Your task to perform on an android device: Open the calendar and show me this week's events? Image 0: 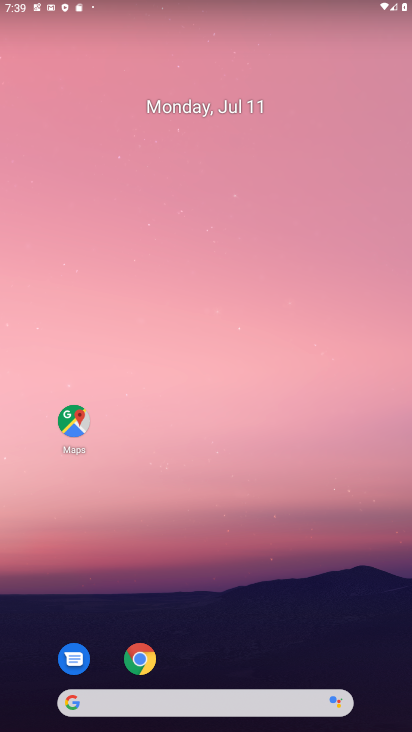
Step 0: press back button
Your task to perform on an android device: Open the calendar and show me this week's events? Image 1: 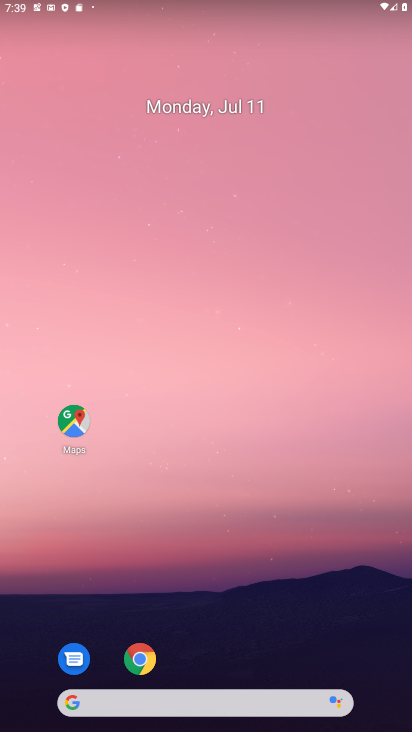
Step 1: press home button
Your task to perform on an android device: Open the calendar and show me this week's events? Image 2: 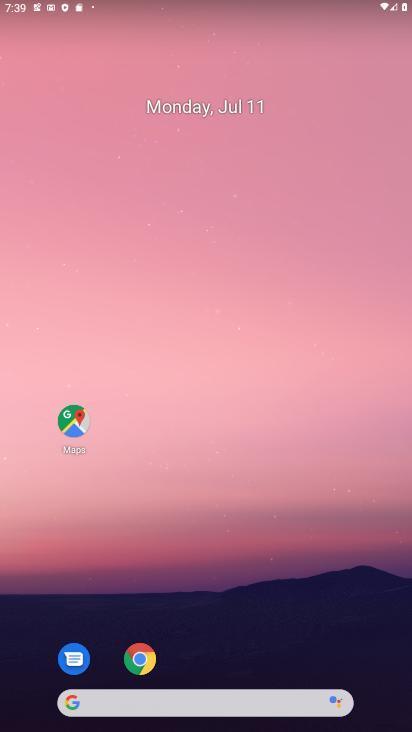
Step 2: drag from (90, 154) to (57, 16)
Your task to perform on an android device: Open the calendar and show me this week's events? Image 3: 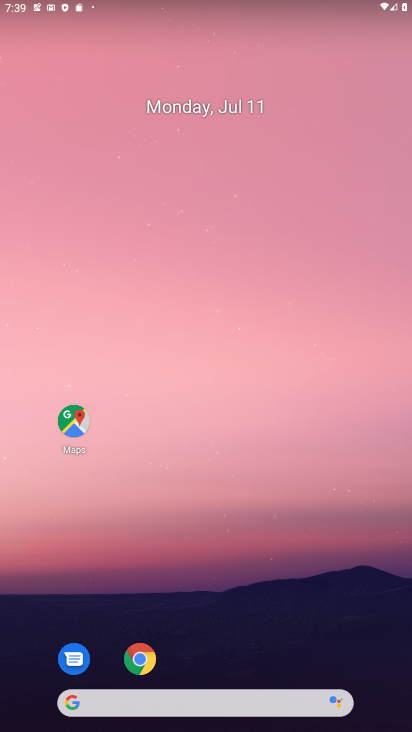
Step 3: drag from (199, 499) to (161, 33)
Your task to perform on an android device: Open the calendar and show me this week's events? Image 4: 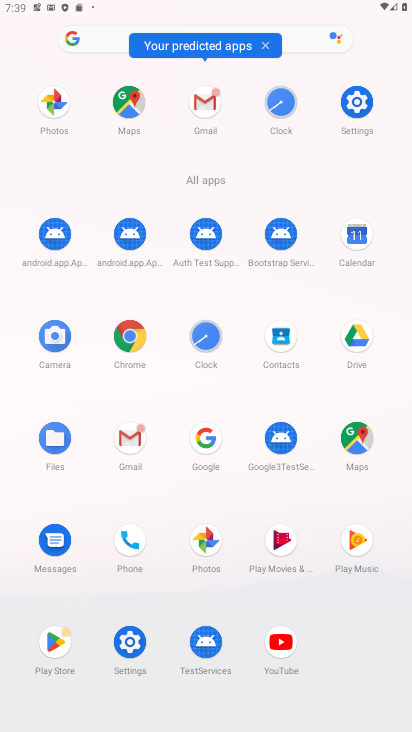
Step 4: click (356, 233)
Your task to perform on an android device: Open the calendar and show me this week's events? Image 5: 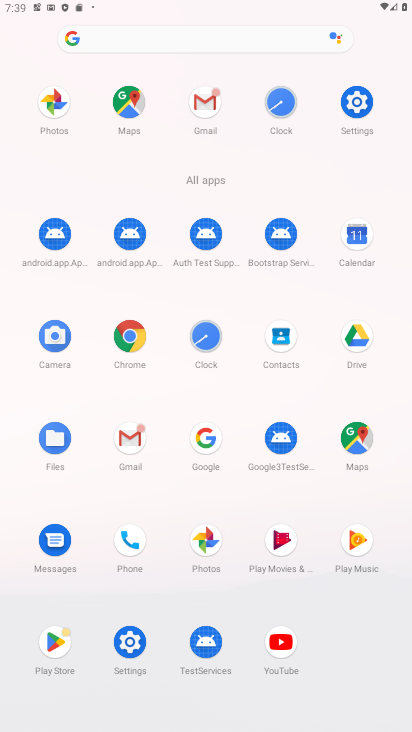
Step 5: click (352, 236)
Your task to perform on an android device: Open the calendar and show me this week's events? Image 6: 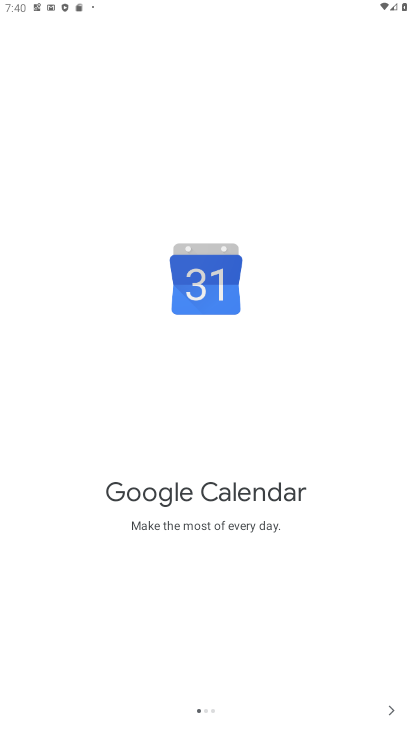
Step 6: click (386, 717)
Your task to perform on an android device: Open the calendar and show me this week's events? Image 7: 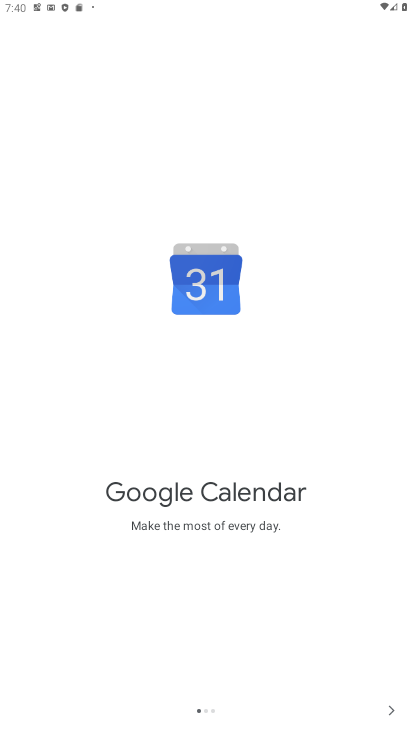
Step 7: click (398, 710)
Your task to perform on an android device: Open the calendar and show me this week's events? Image 8: 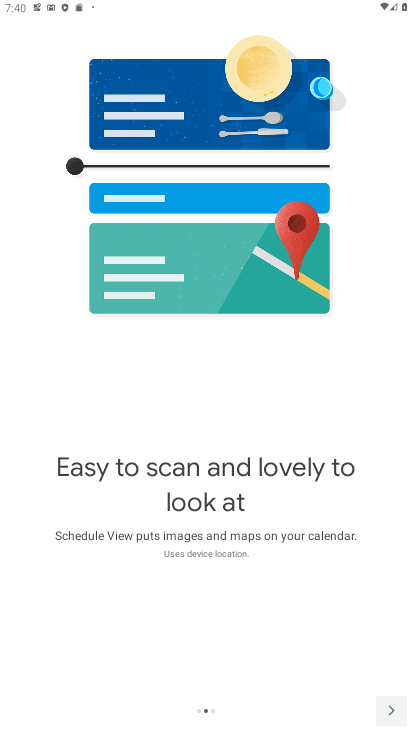
Step 8: click (388, 708)
Your task to perform on an android device: Open the calendar and show me this week's events? Image 9: 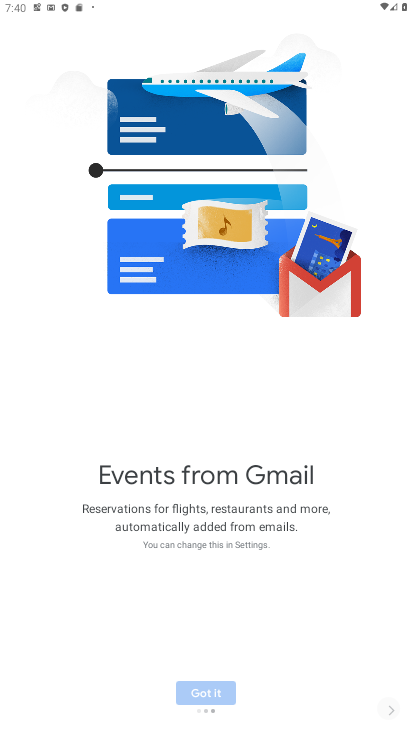
Step 9: click (386, 706)
Your task to perform on an android device: Open the calendar and show me this week's events? Image 10: 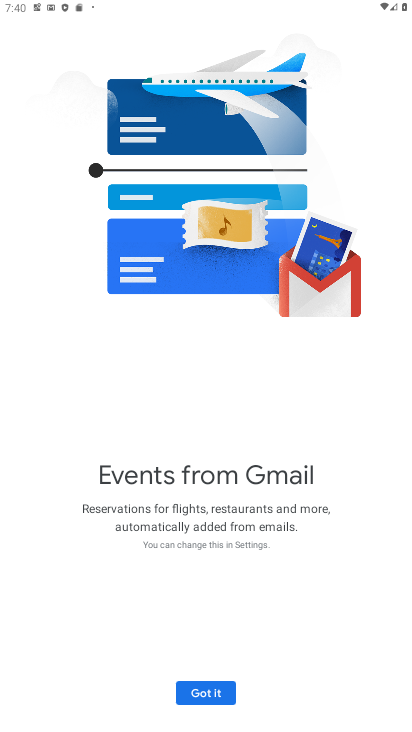
Step 10: click (387, 704)
Your task to perform on an android device: Open the calendar and show me this week's events? Image 11: 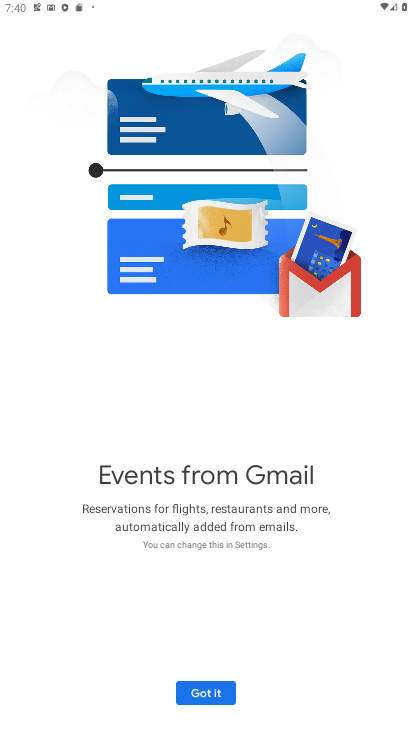
Step 11: click (387, 704)
Your task to perform on an android device: Open the calendar and show me this week's events? Image 12: 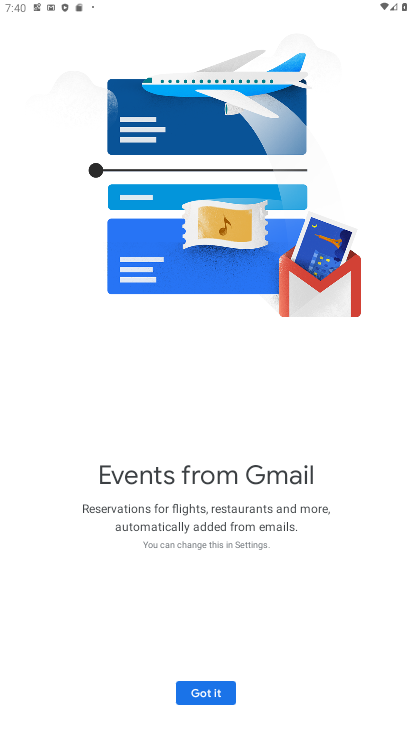
Step 12: click (375, 697)
Your task to perform on an android device: Open the calendar and show me this week's events? Image 13: 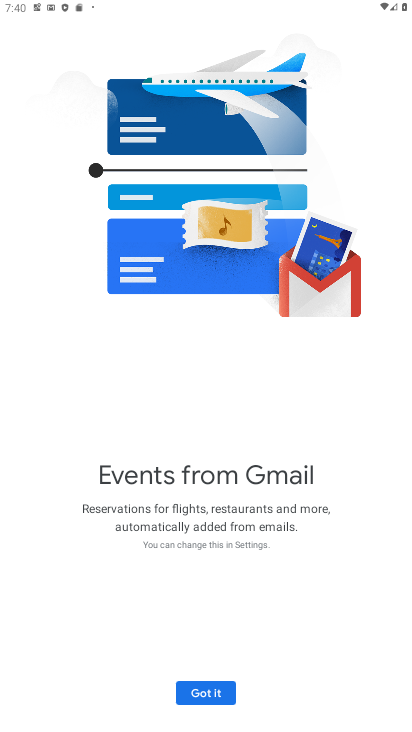
Step 13: click (212, 686)
Your task to perform on an android device: Open the calendar and show me this week's events? Image 14: 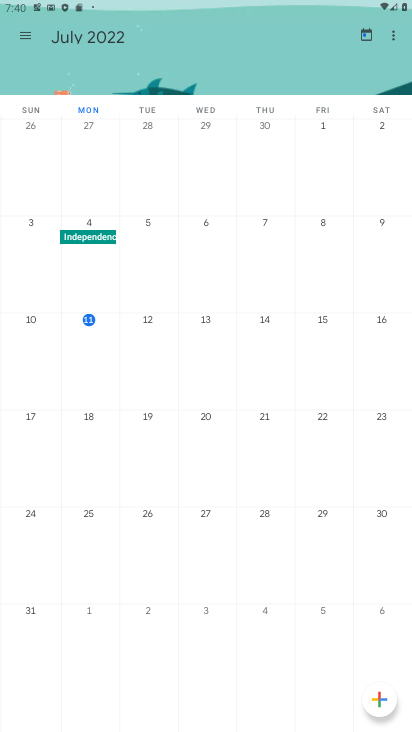
Step 14: click (382, 321)
Your task to perform on an android device: Open the calendar and show me this week's events? Image 15: 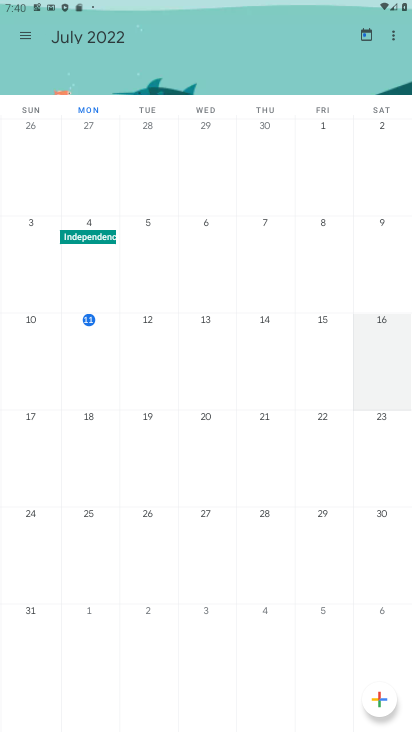
Step 15: click (383, 322)
Your task to perform on an android device: Open the calendar and show me this week's events? Image 16: 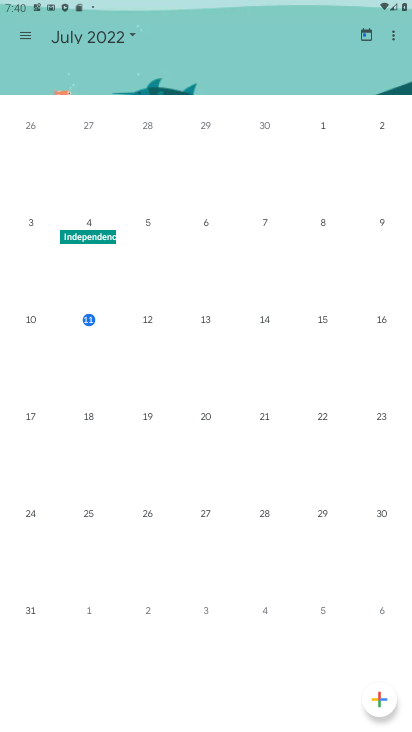
Step 16: click (383, 322)
Your task to perform on an android device: Open the calendar and show me this week's events? Image 17: 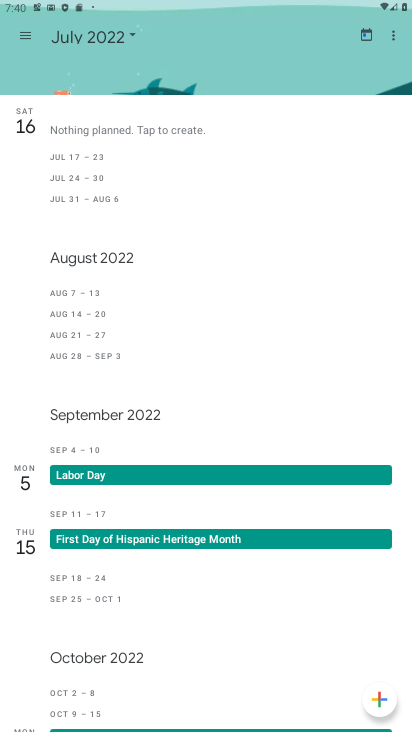
Step 17: click (383, 322)
Your task to perform on an android device: Open the calendar and show me this week's events? Image 18: 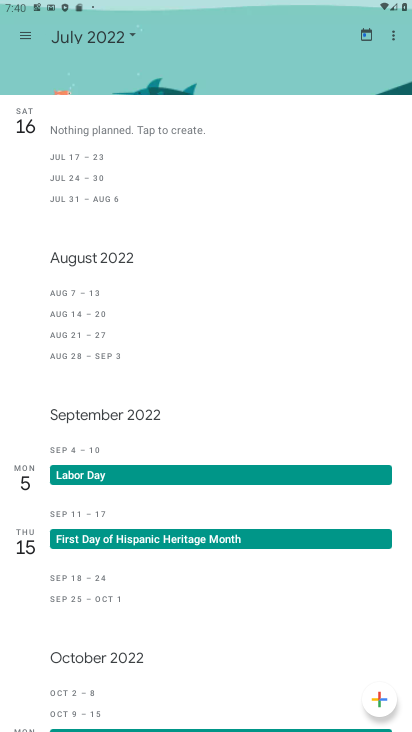
Step 18: task complete